Your task to perform on an android device: Open Chrome and go to settings Image 0: 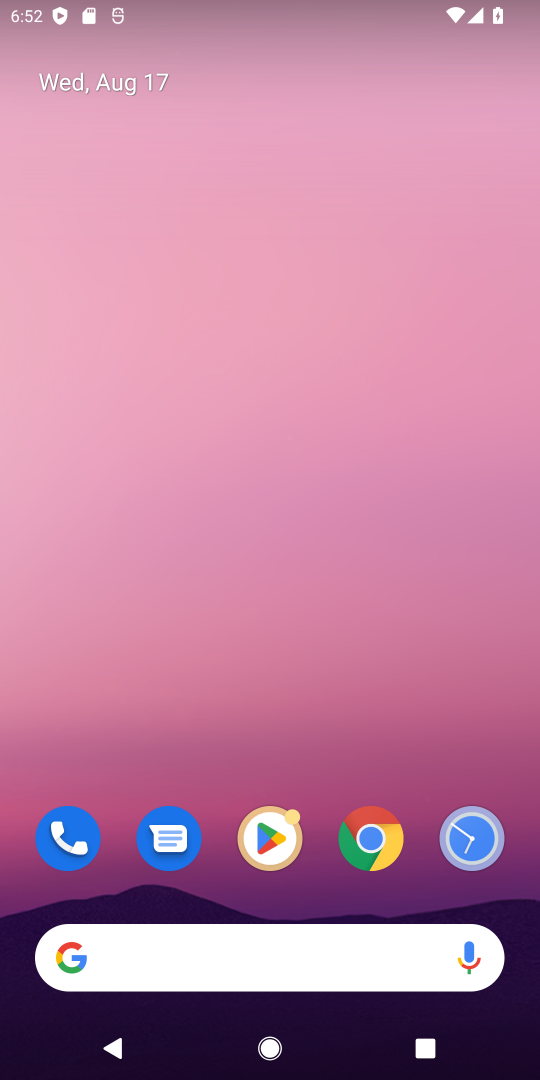
Step 0: drag from (460, 376) to (534, 595)
Your task to perform on an android device: Open Chrome and go to settings Image 1: 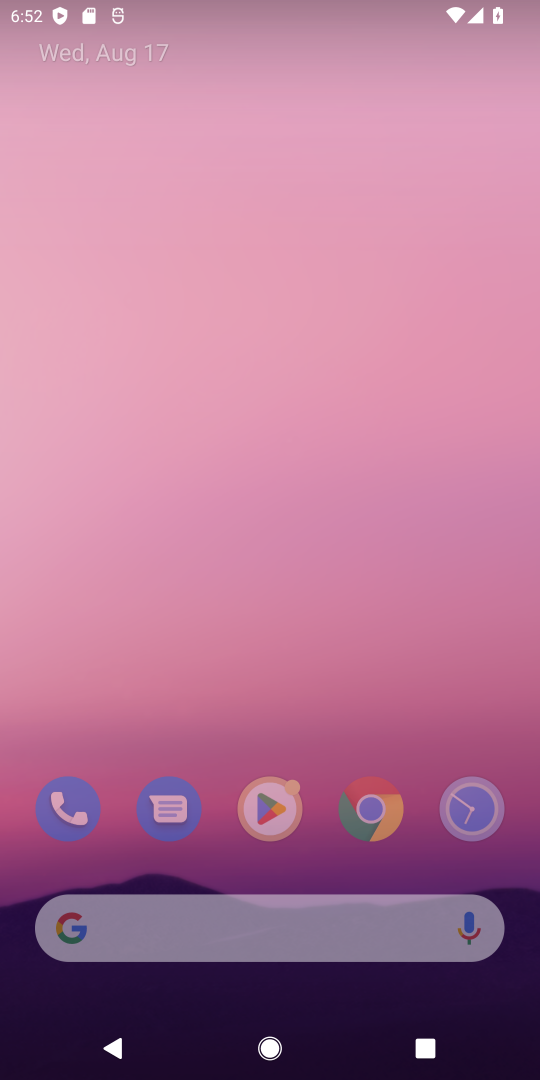
Step 1: drag from (284, 944) to (537, 184)
Your task to perform on an android device: Open Chrome and go to settings Image 2: 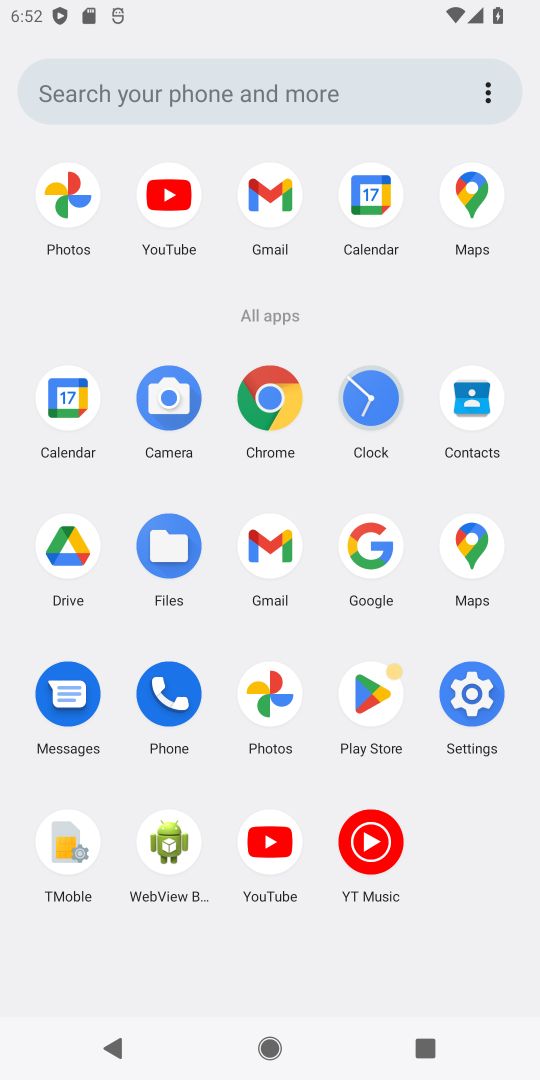
Step 2: click (275, 427)
Your task to perform on an android device: Open Chrome and go to settings Image 3: 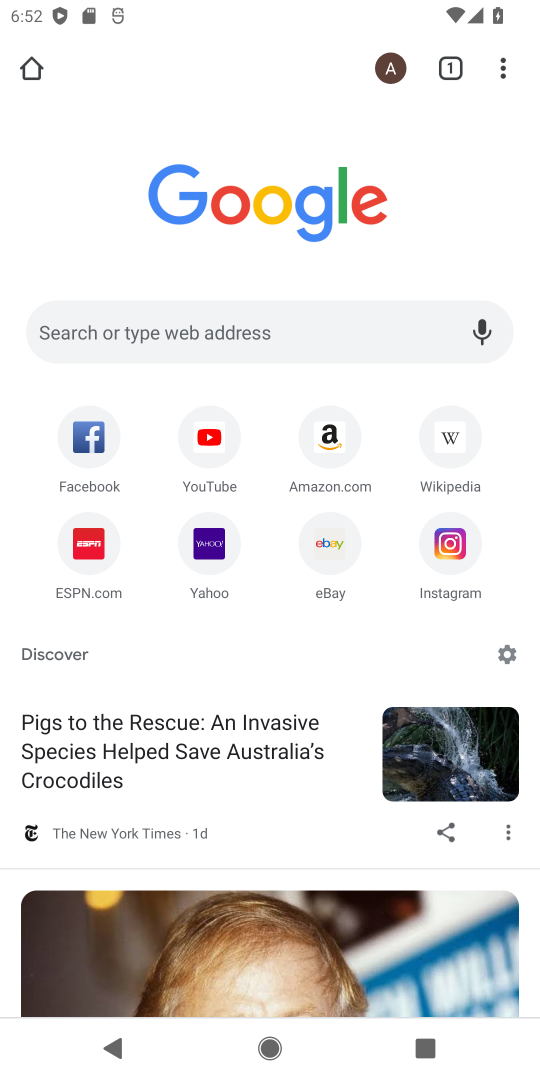
Step 3: click (496, 72)
Your task to perform on an android device: Open Chrome and go to settings Image 4: 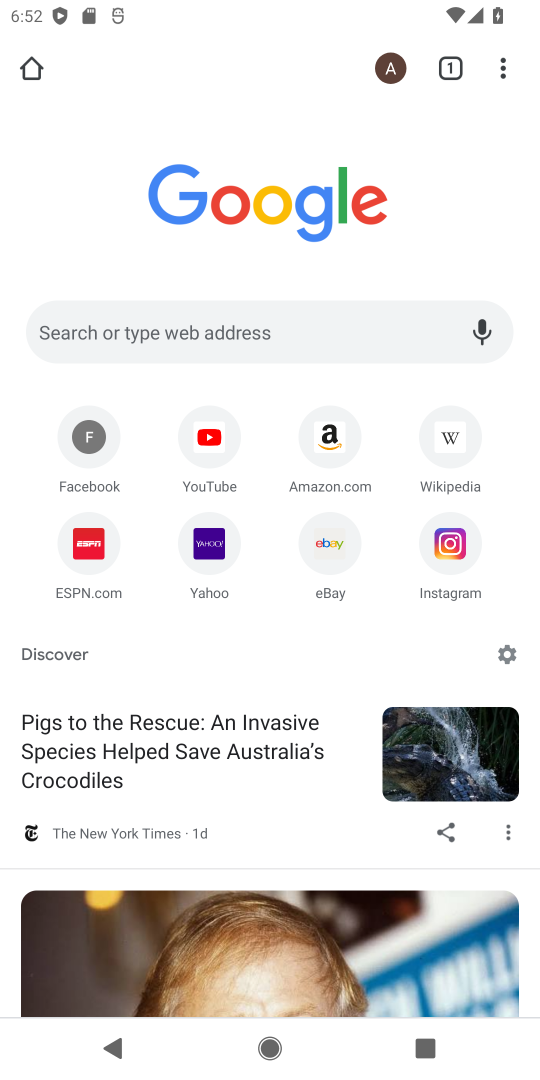
Step 4: click (502, 73)
Your task to perform on an android device: Open Chrome and go to settings Image 5: 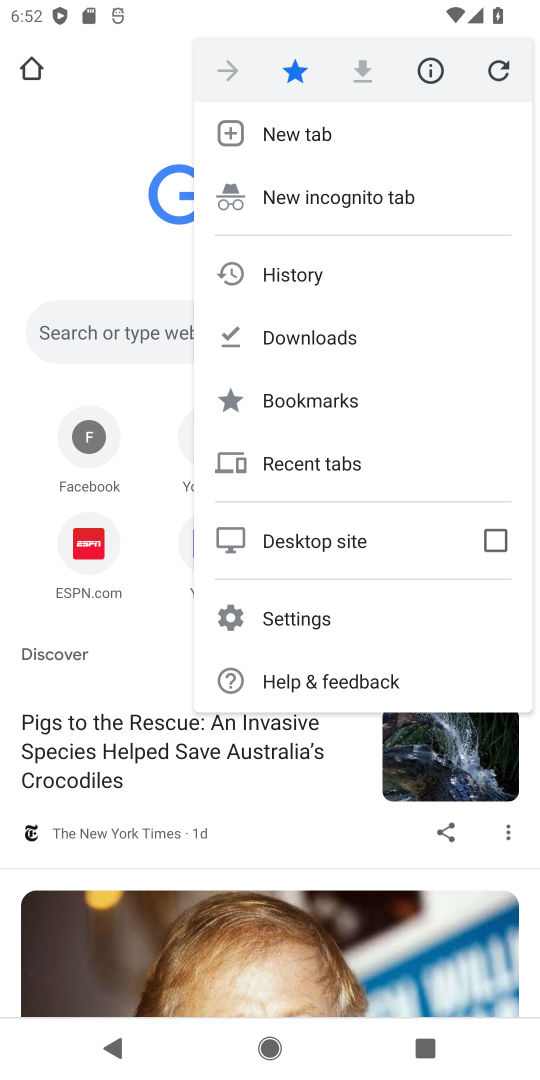
Step 5: click (310, 619)
Your task to perform on an android device: Open Chrome and go to settings Image 6: 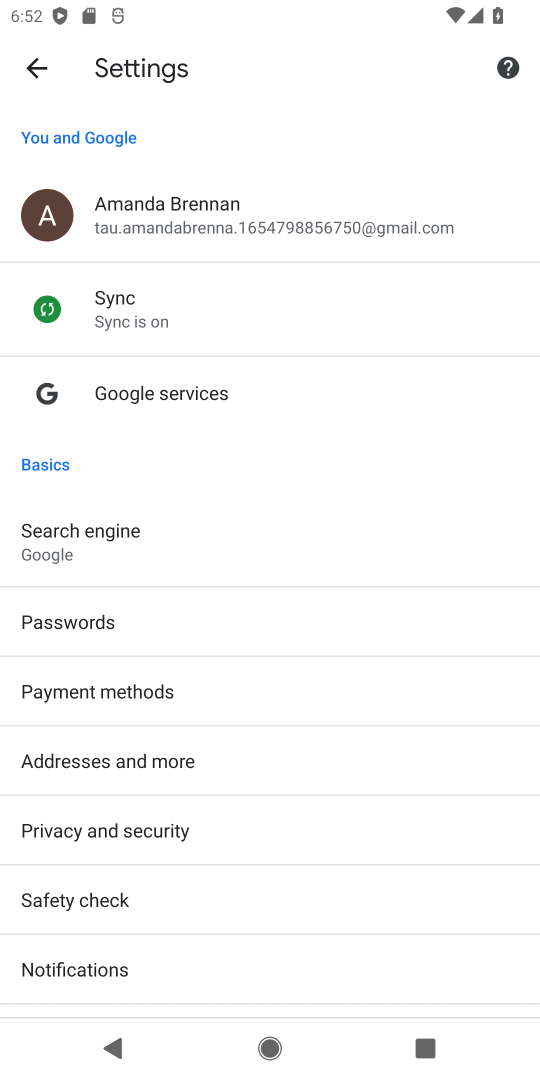
Step 6: task complete